Your task to perform on an android device: toggle show notifications on the lock screen Image 0: 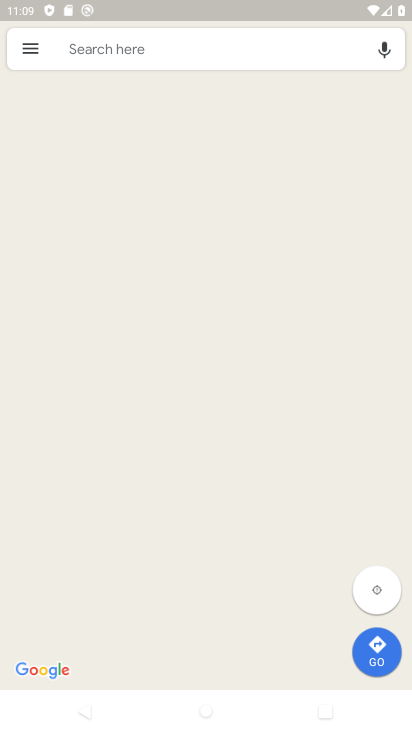
Step 0: click (222, 364)
Your task to perform on an android device: toggle show notifications on the lock screen Image 1: 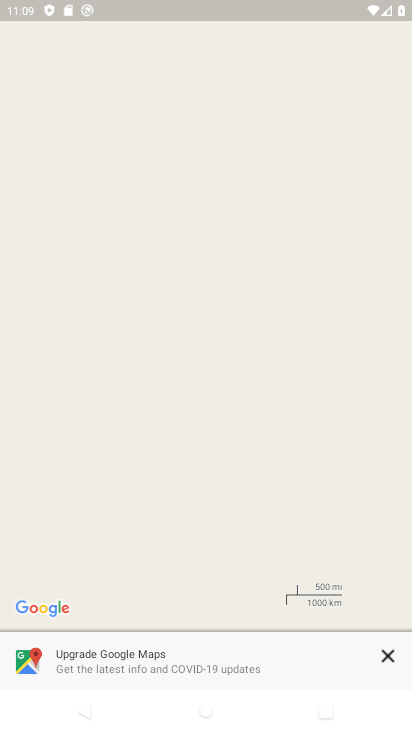
Step 1: press home button
Your task to perform on an android device: toggle show notifications on the lock screen Image 2: 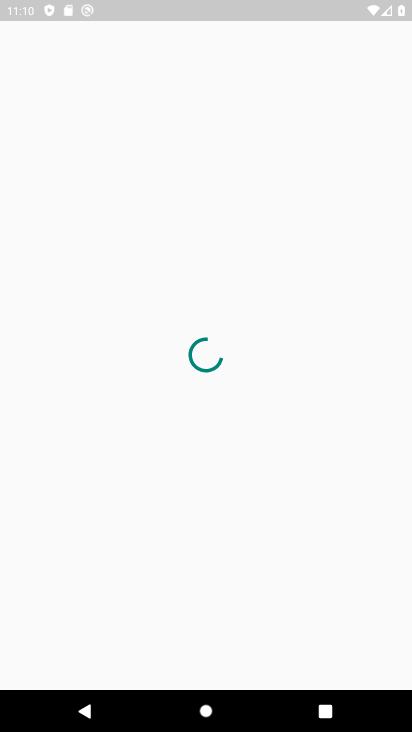
Step 2: drag from (253, 601) to (242, 83)
Your task to perform on an android device: toggle show notifications on the lock screen Image 3: 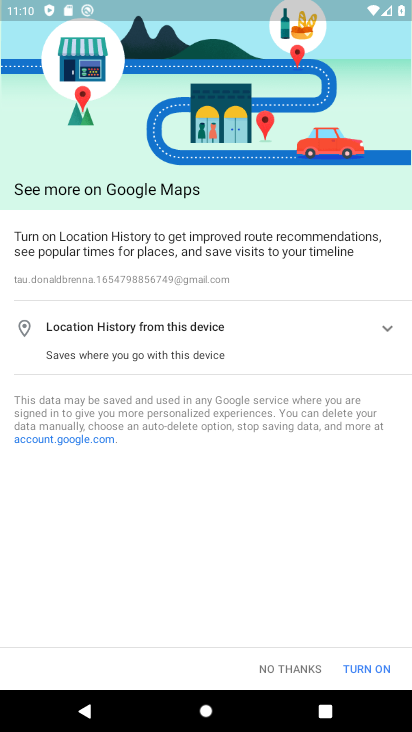
Step 3: press home button
Your task to perform on an android device: toggle show notifications on the lock screen Image 4: 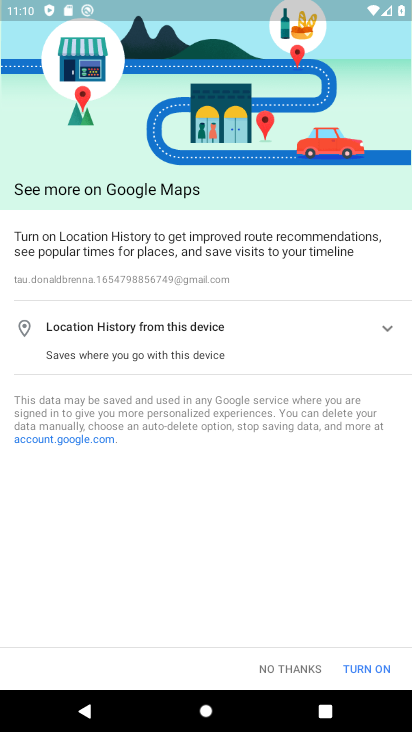
Step 4: drag from (242, 83) to (402, 446)
Your task to perform on an android device: toggle show notifications on the lock screen Image 5: 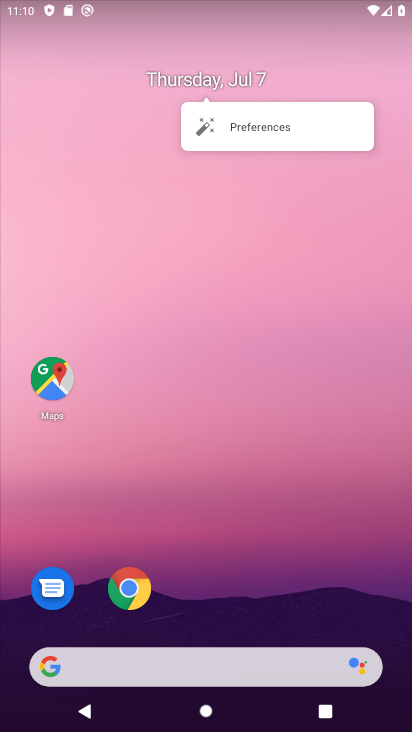
Step 5: click (197, 605)
Your task to perform on an android device: toggle show notifications on the lock screen Image 6: 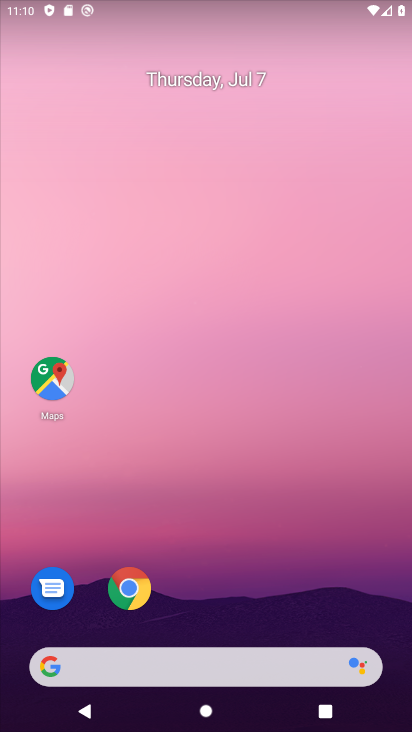
Step 6: drag from (197, 605) to (235, 82)
Your task to perform on an android device: toggle show notifications on the lock screen Image 7: 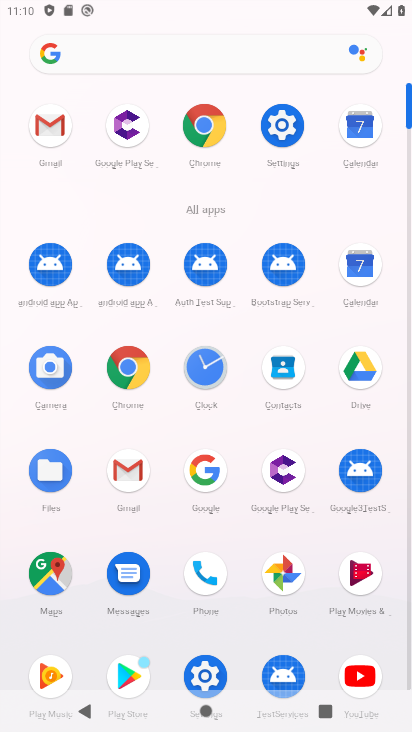
Step 7: click (280, 124)
Your task to perform on an android device: toggle show notifications on the lock screen Image 8: 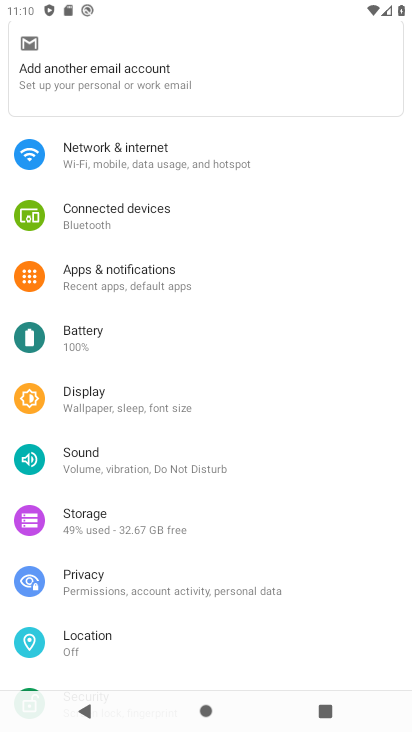
Step 8: click (135, 274)
Your task to perform on an android device: toggle show notifications on the lock screen Image 9: 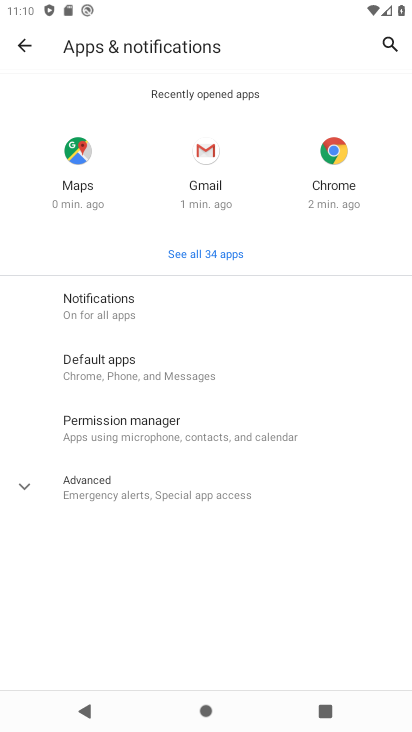
Step 9: click (131, 296)
Your task to perform on an android device: toggle show notifications on the lock screen Image 10: 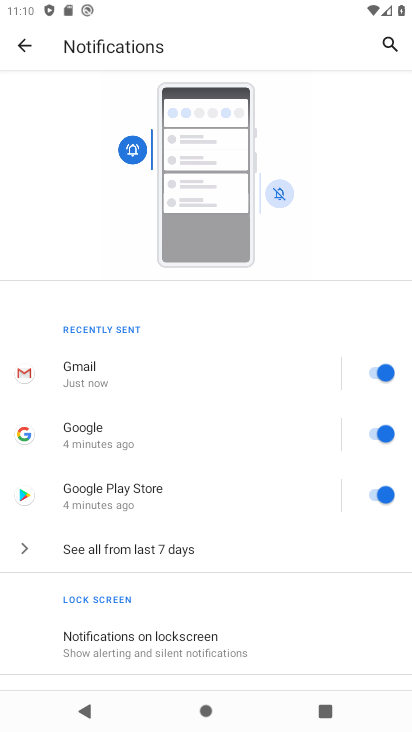
Step 10: click (131, 646)
Your task to perform on an android device: toggle show notifications on the lock screen Image 11: 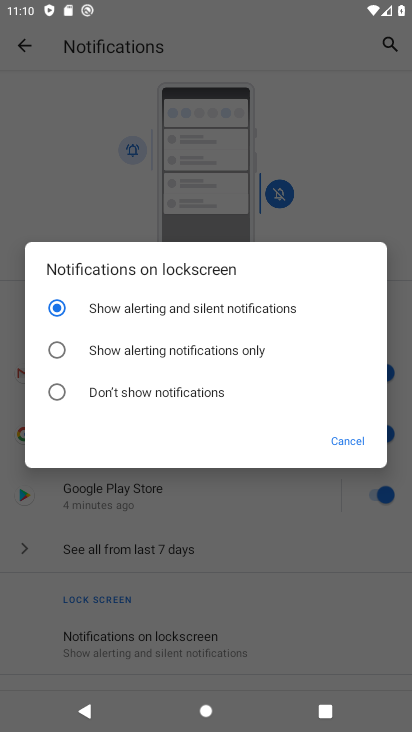
Step 11: click (123, 351)
Your task to perform on an android device: toggle show notifications on the lock screen Image 12: 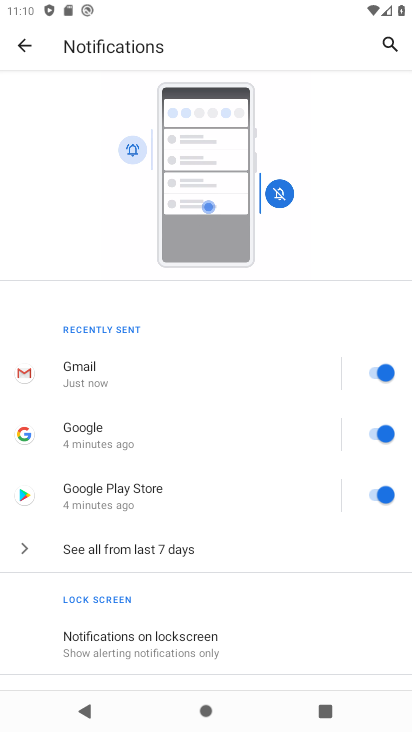
Step 12: task complete